Your task to perform on an android device: Add logitech g pro to the cart on walmart.com Image 0: 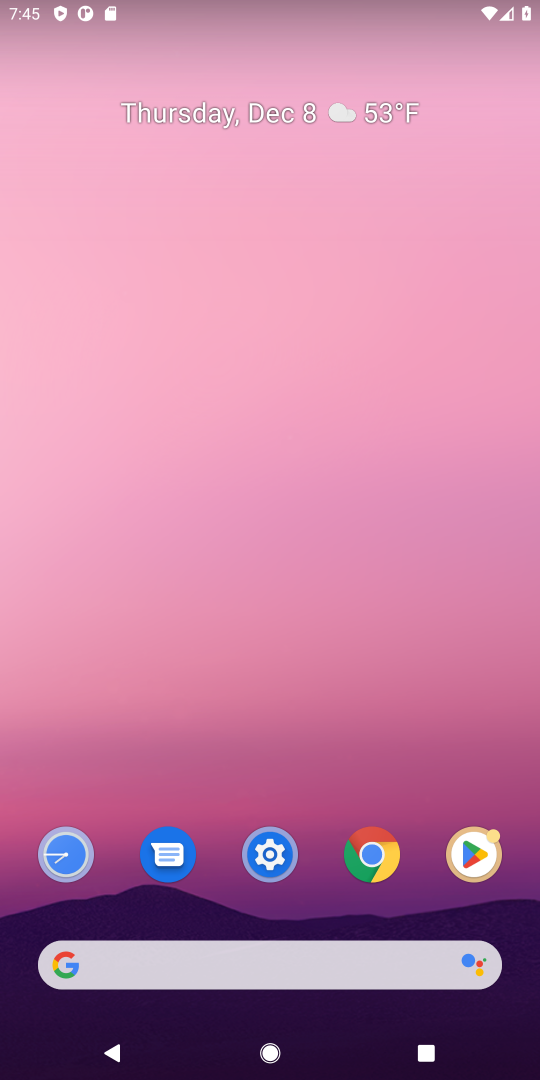
Step 0: press home button
Your task to perform on an android device: Add logitech g pro to the cart on walmart.com Image 1: 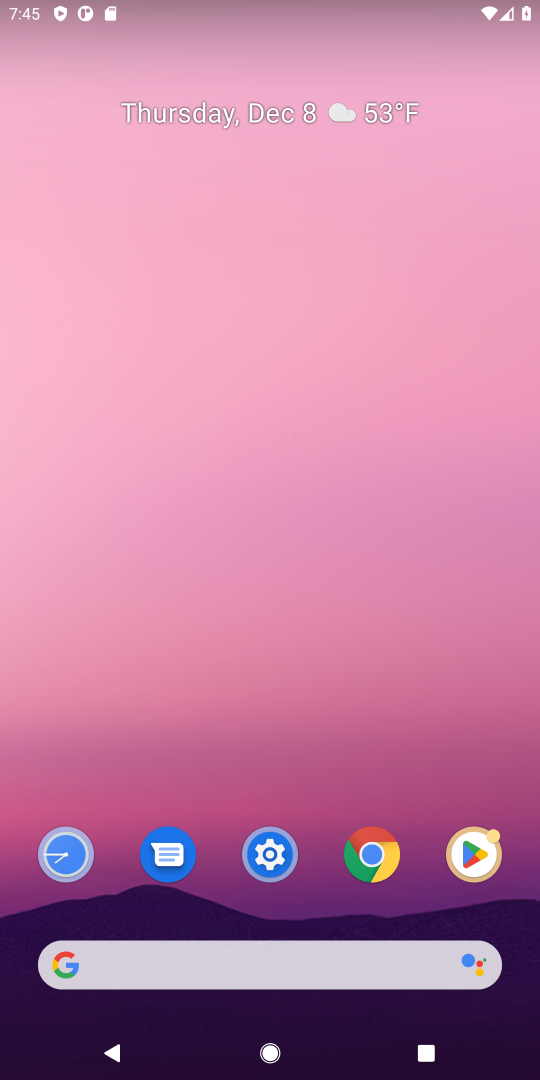
Step 1: click (99, 951)
Your task to perform on an android device: Add logitech g pro to the cart on walmart.com Image 2: 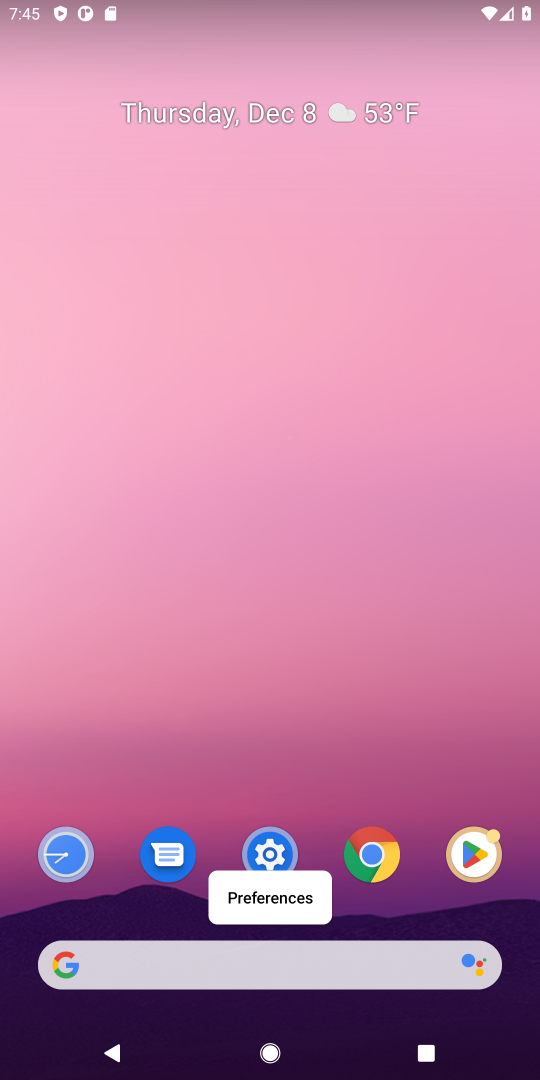
Step 2: click (91, 967)
Your task to perform on an android device: Add logitech g pro to the cart on walmart.com Image 3: 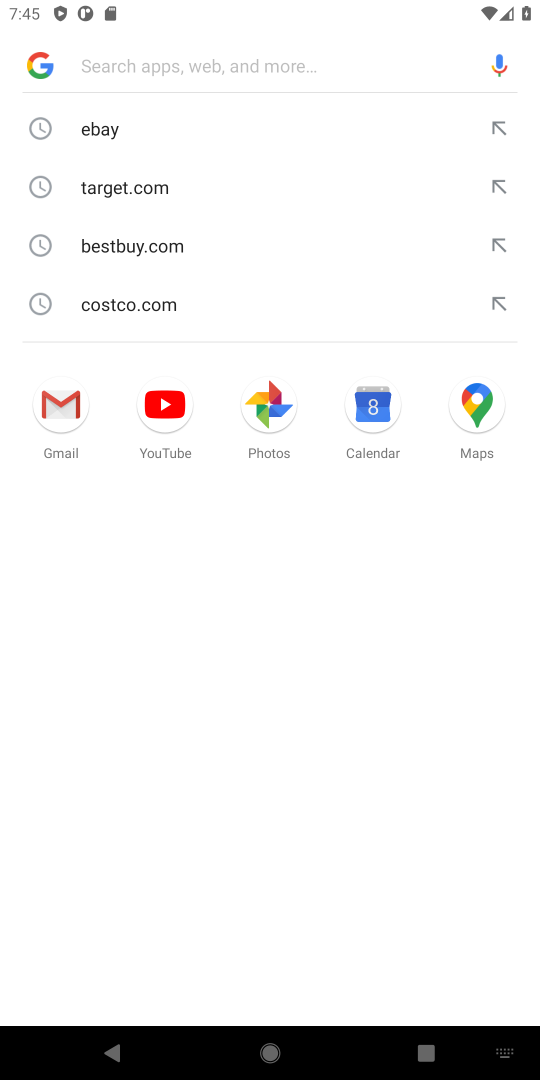
Step 3: type "walmart.com"
Your task to perform on an android device: Add logitech g pro to the cart on walmart.com Image 4: 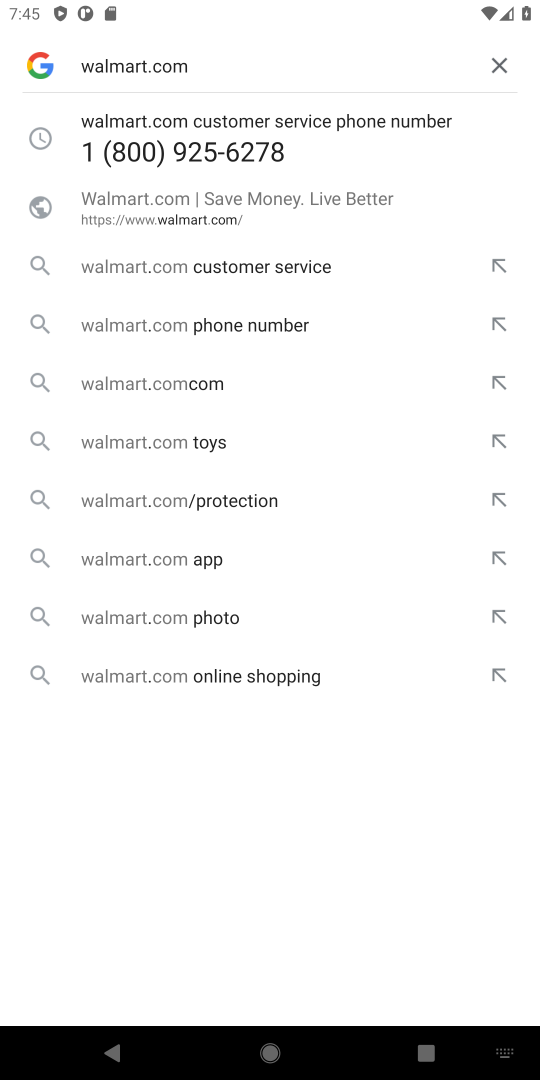
Step 4: press enter
Your task to perform on an android device: Add logitech g pro to the cart on walmart.com Image 5: 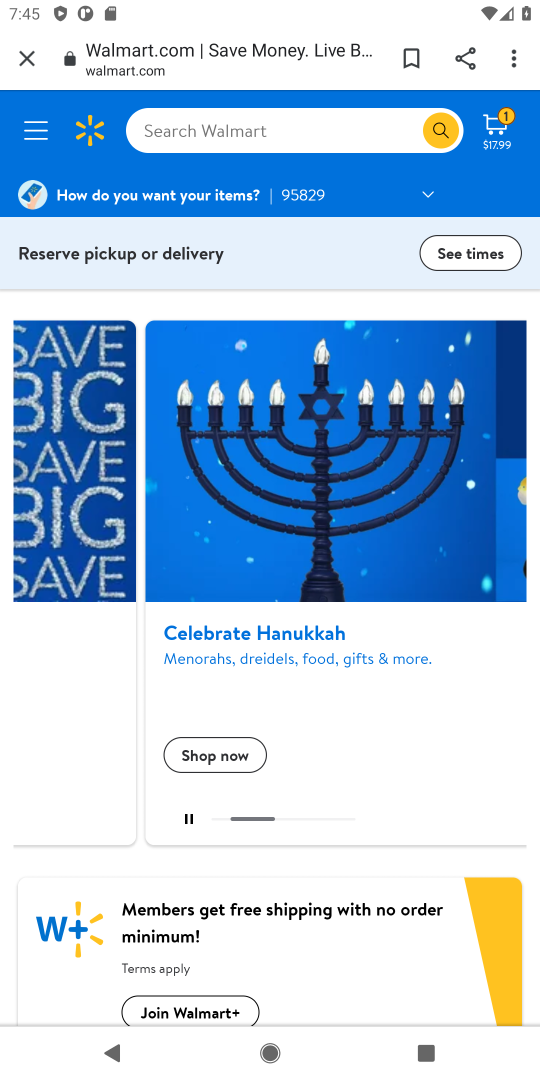
Step 5: click (224, 129)
Your task to perform on an android device: Add logitech g pro to the cart on walmart.com Image 6: 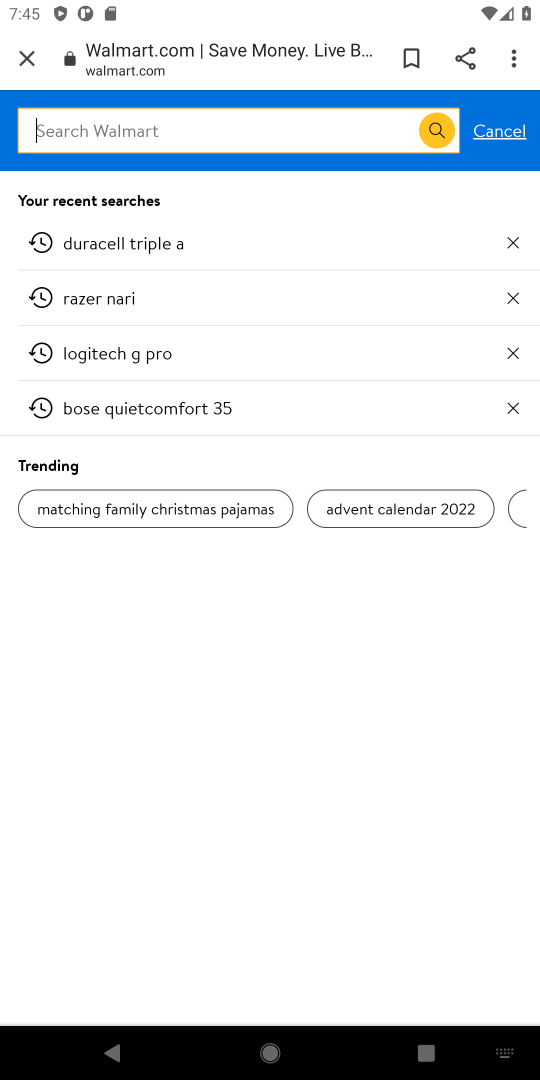
Step 6: type "logitech g pro"
Your task to perform on an android device: Add logitech g pro to the cart on walmart.com Image 7: 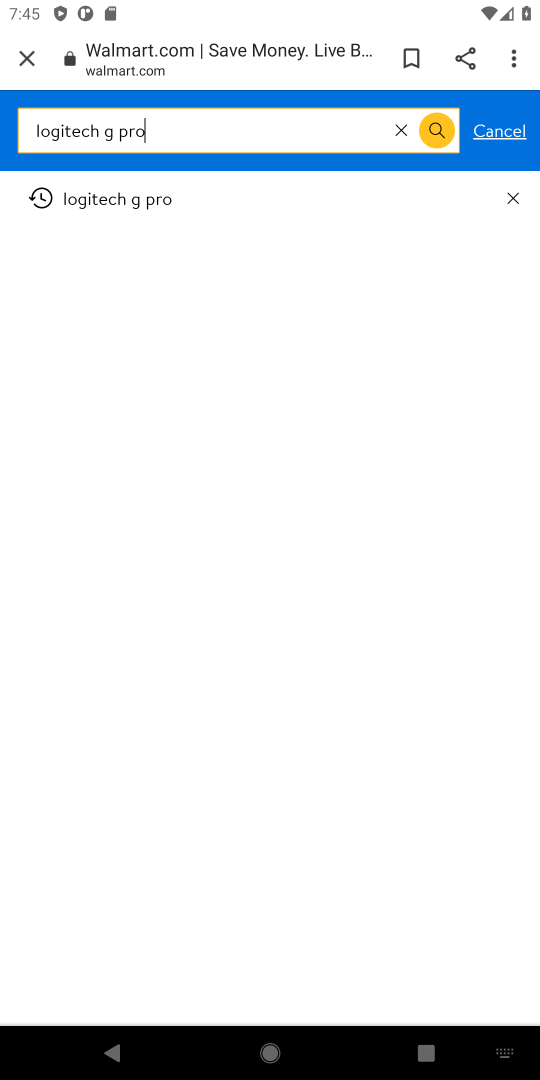
Step 7: press enter
Your task to perform on an android device: Add logitech g pro to the cart on walmart.com Image 8: 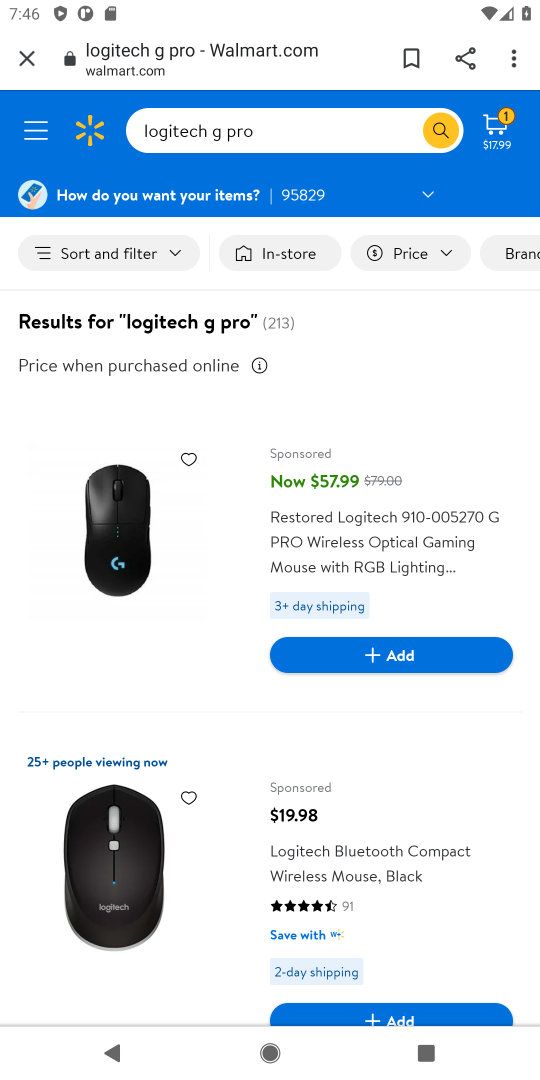
Step 8: drag from (406, 884) to (417, 548)
Your task to perform on an android device: Add logitech g pro to the cart on walmart.com Image 9: 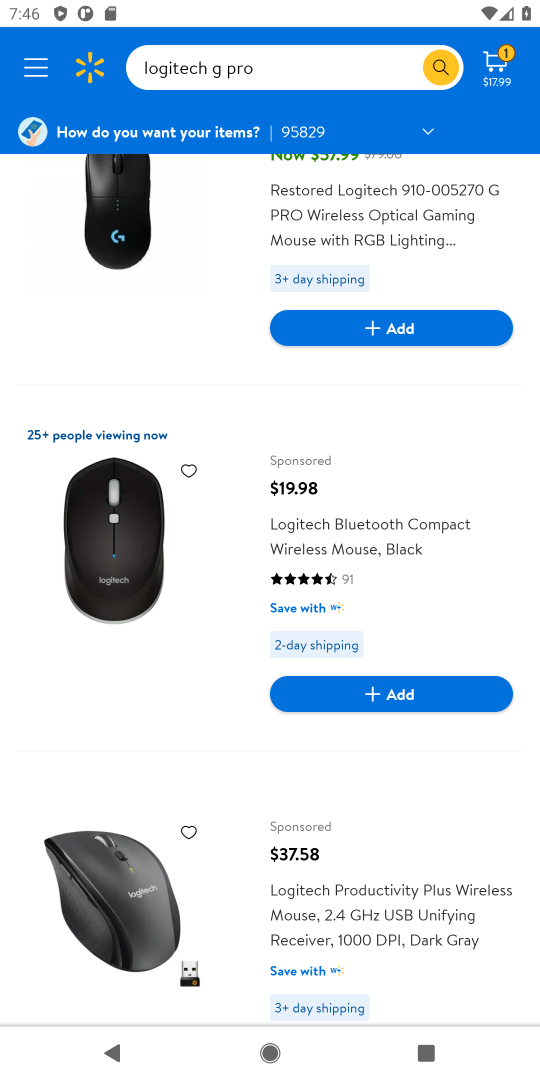
Step 9: drag from (389, 938) to (436, 430)
Your task to perform on an android device: Add logitech g pro to the cart on walmart.com Image 10: 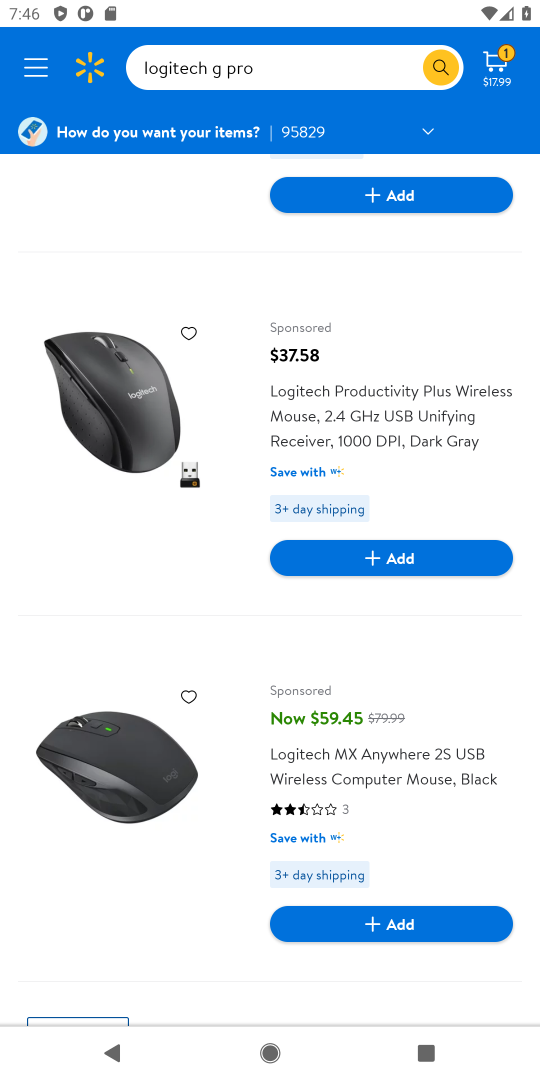
Step 10: drag from (357, 875) to (384, 359)
Your task to perform on an android device: Add logitech g pro to the cart on walmart.com Image 11: 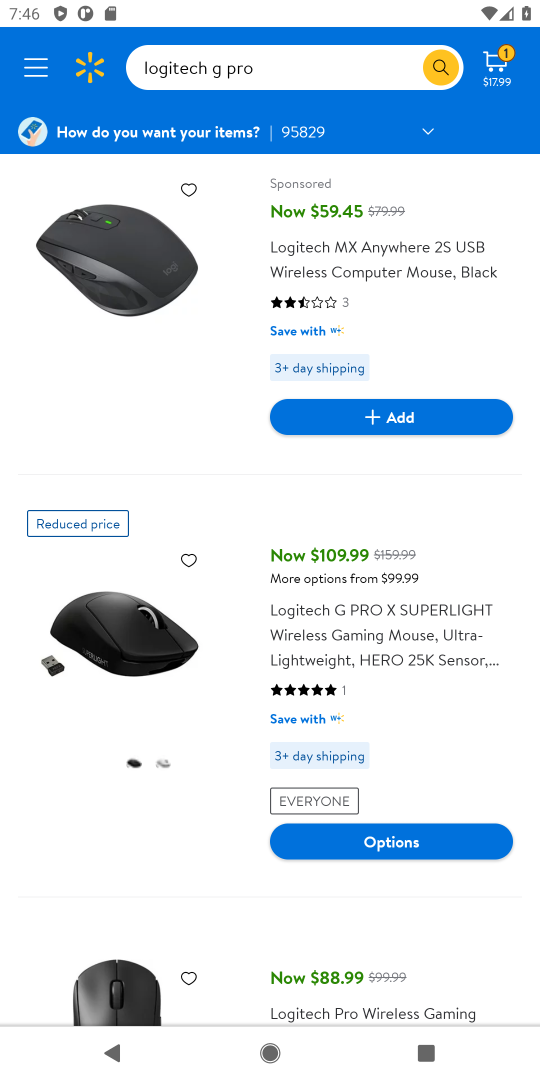
Step 11: click (381, 642)
Your task to perform on an android device: Add logitech g pro to the cart on walmart.com Image 12: 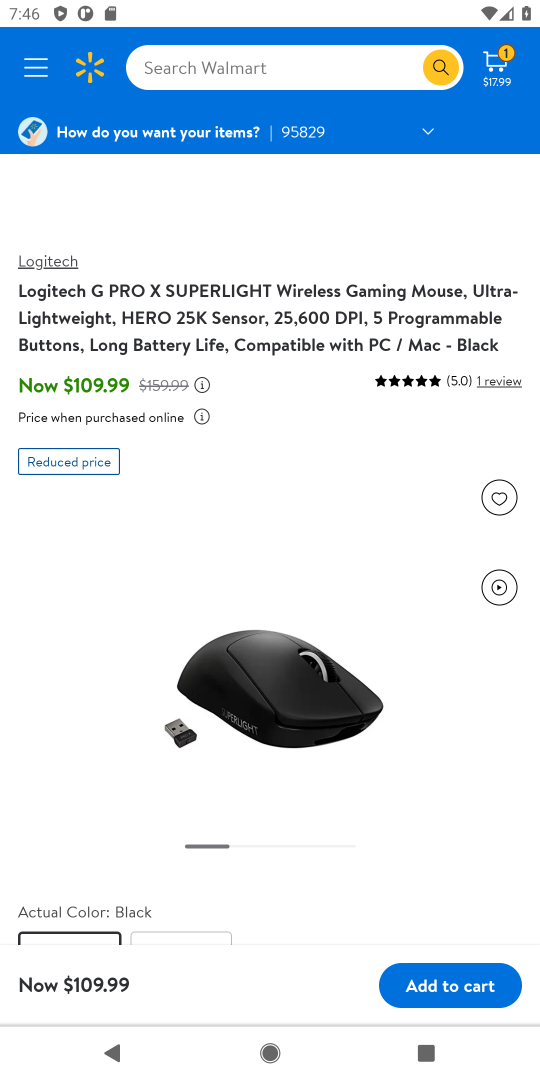
Step 12: click (454, 989)
Your task to perform on an android device: Add logitech g pro to the cart on walmart.com Image 13: 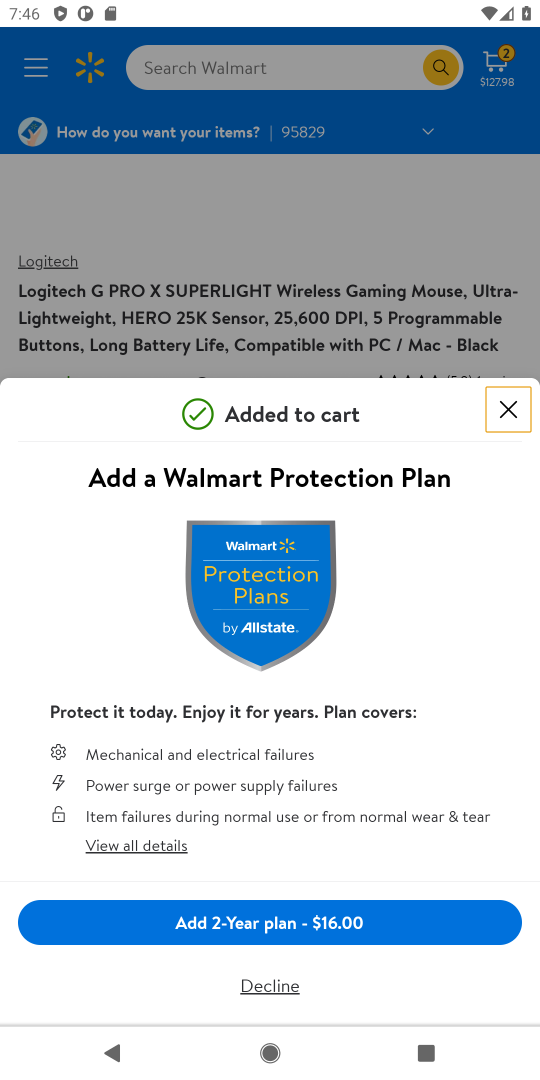
Step 13: click (261, 982)
Your task to perform on an android device: Add logitech g pro to the cart on walmart.com Image 14: 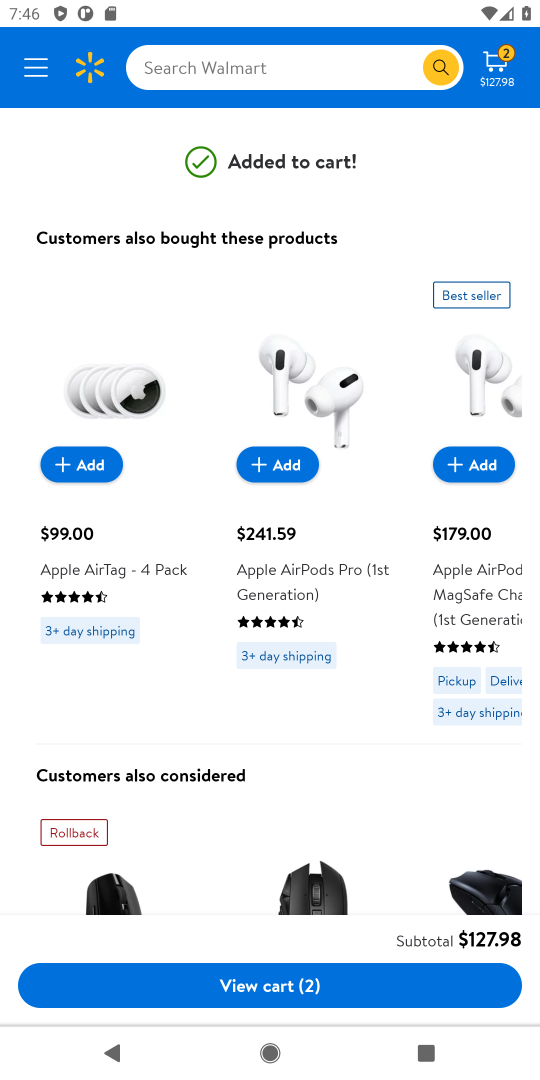
Step 14: task complete